Your task to perform on an android device: Open battery settings Image 0: 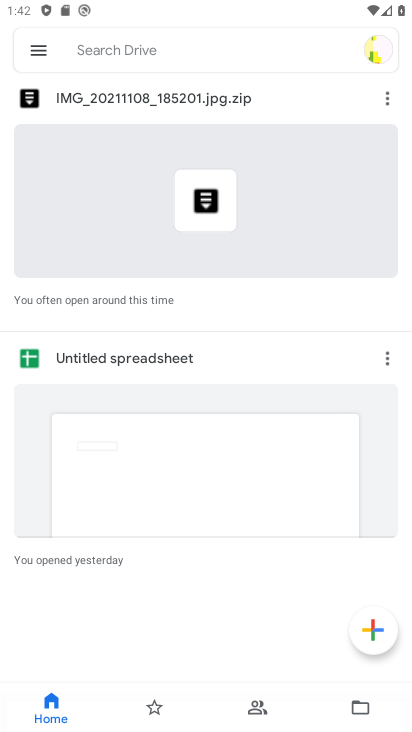
Step 0: press home button
Your task to perform on an android device: Open battery settings Image 1: 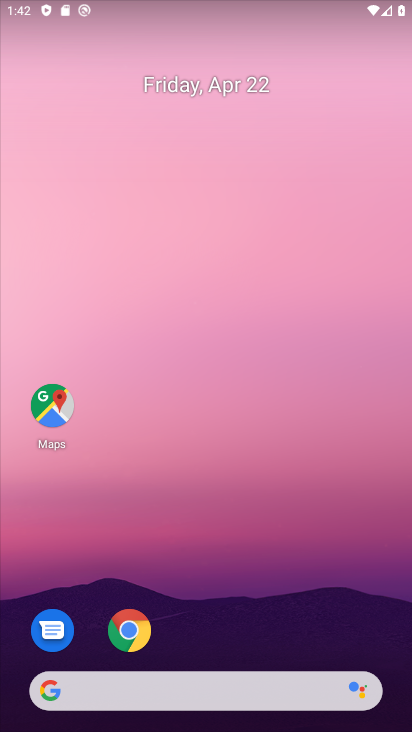
Step 1: drag from (206, 565) to (238, 3)
Your task to perform on an android device: Open battery settings Image 2: 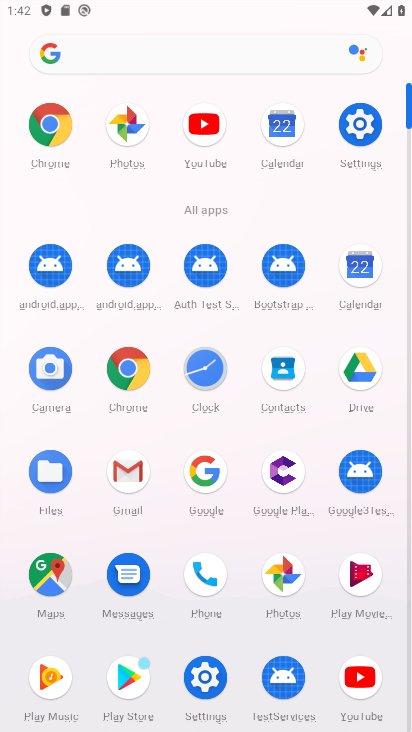
Step 2: click (360, 142)
Your task to perform on an android device: Open battery settings Image 3: 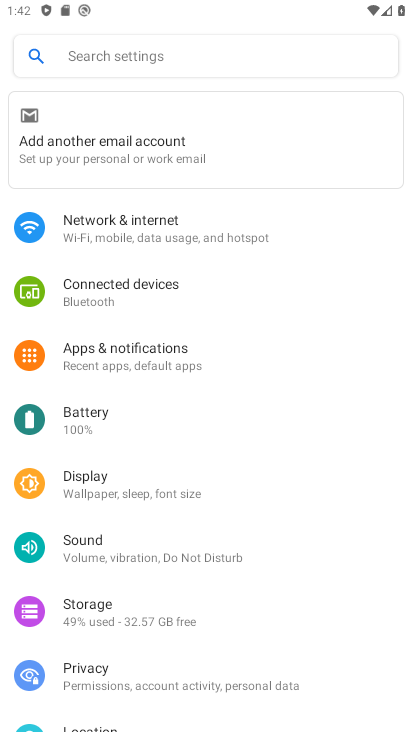
Step 3: click (108, 430)
Your task to perform on an android device: Open battery settings Image 4: 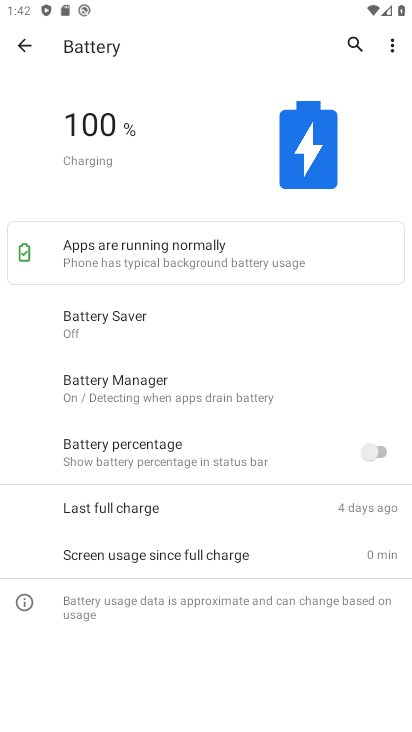
Step 4: task complete